Your task to perform on an android device: check storage Image 0: 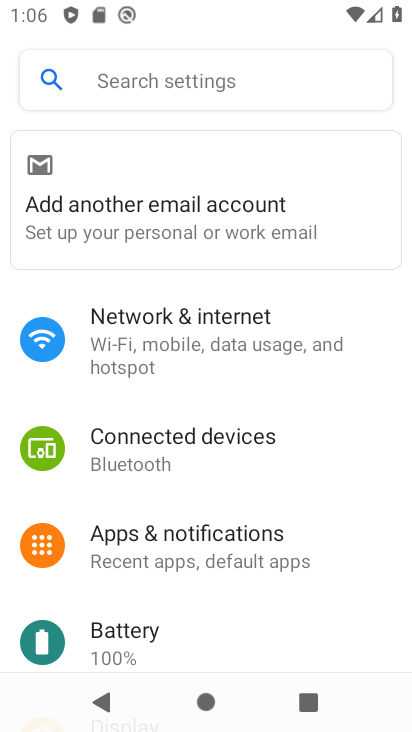
Step 0: drag from (253, 405) to (228, 103)
Your task to perform on an android device: check storage Image 1: 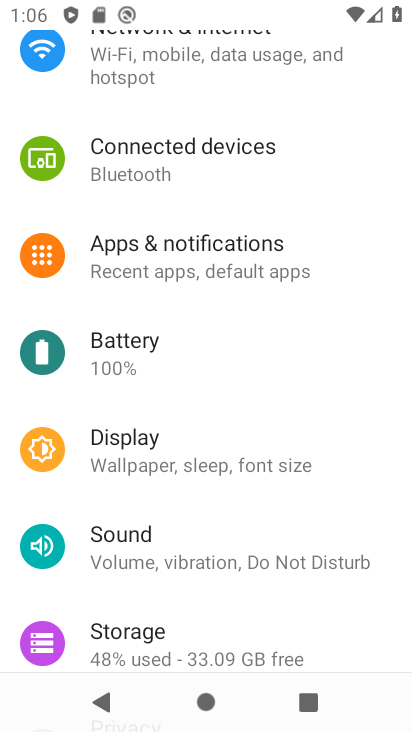
Step 1: click (156, 623)
Your task to perform on an android device: check storage Image 2: 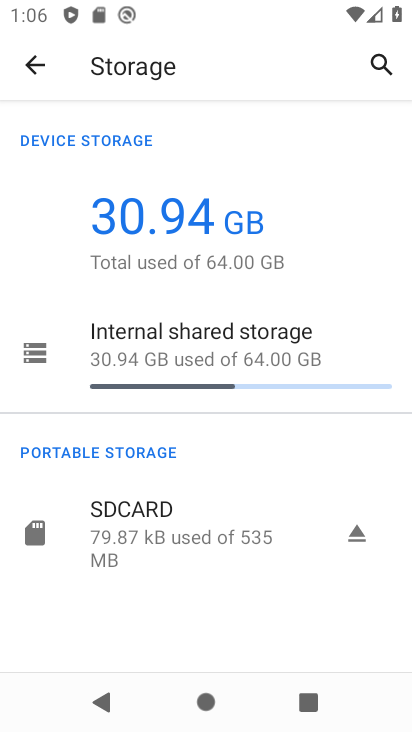
Step 2: task complete